Your task to perform on an android device: change the clock display to show seconds Image 0: 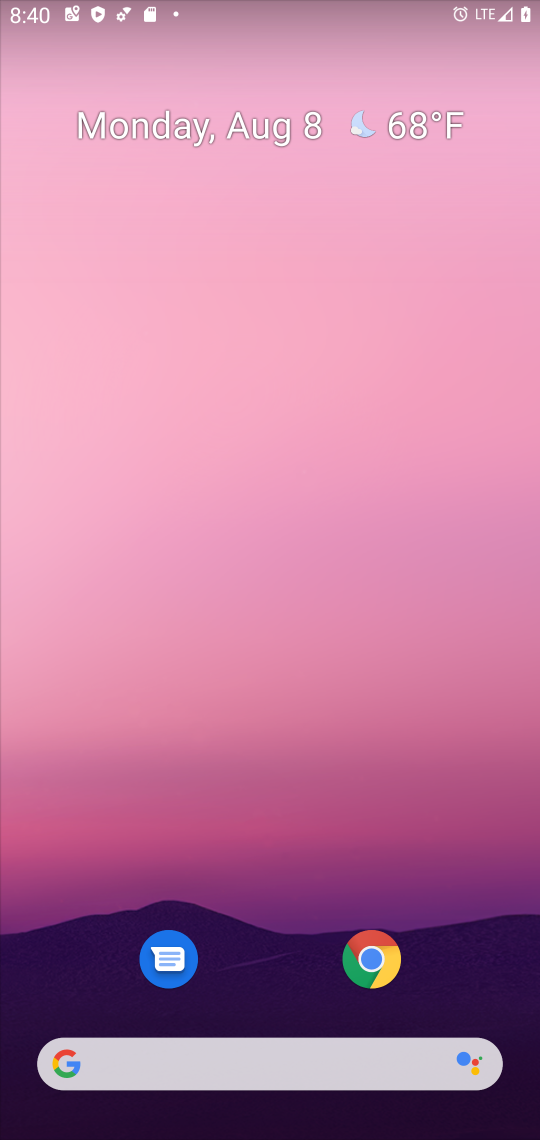
Step 0: drag from (516, 948) to (238, 96)
Your task to perform on an android device: change the clock display to show seconds Image 1: 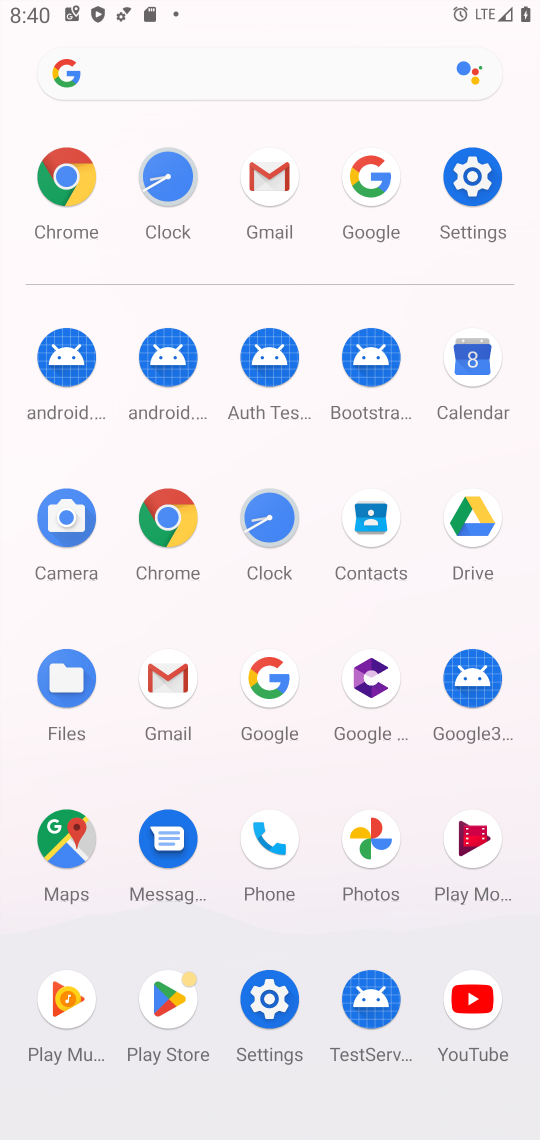
Step 1: click (274, 523)
Your task to perform on an android device: change the clock display to show seconds Image 2: 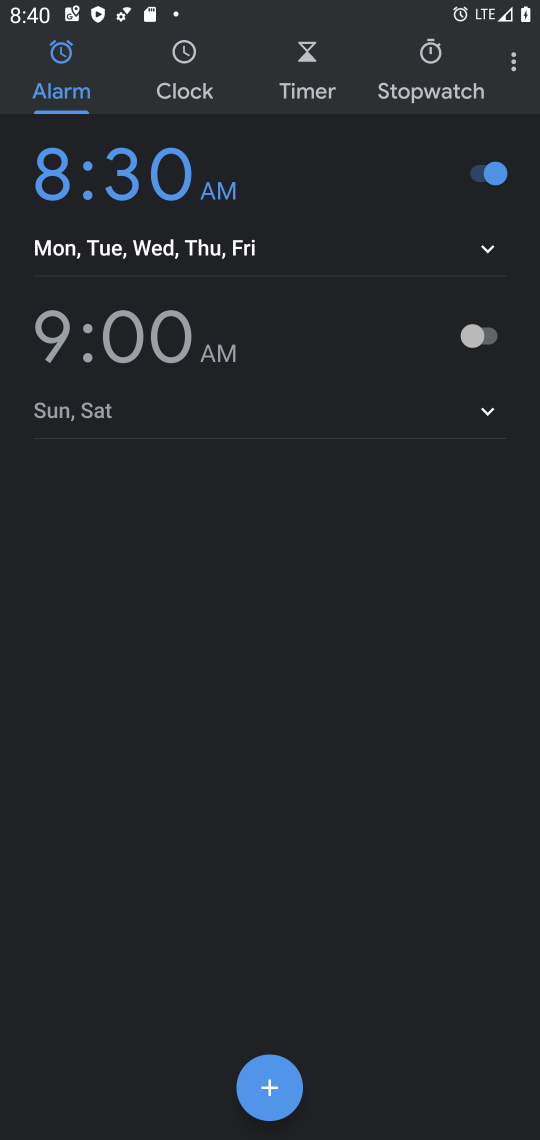
Step 2: click (513, 62)
Your task to perform on an android device: change the clock display to show seconds Image 3: 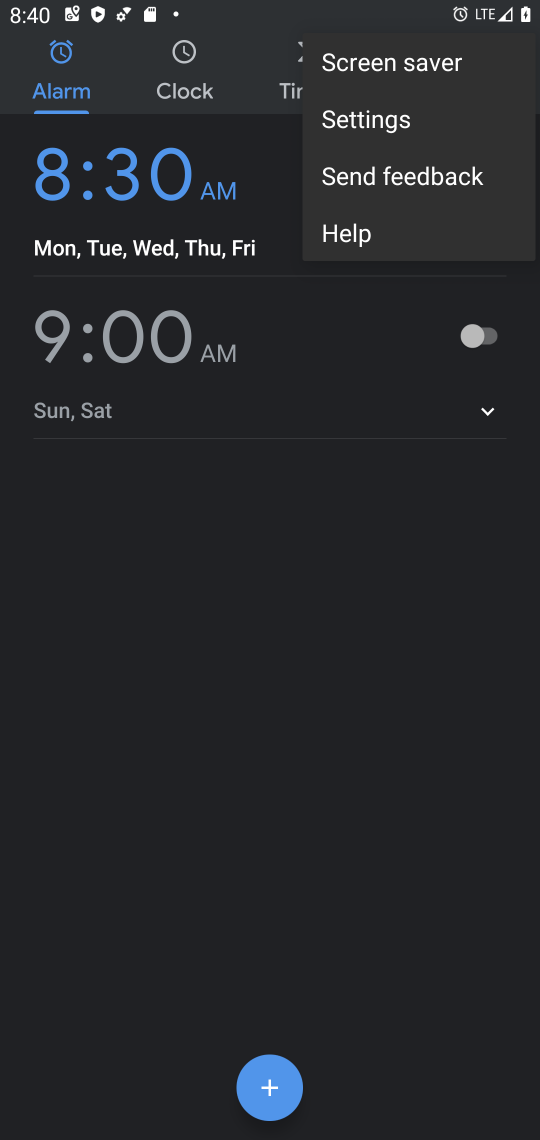
Step 3: click (393, 118)
Your task to perform on an android device: change the clock display to show seconds Image 4: 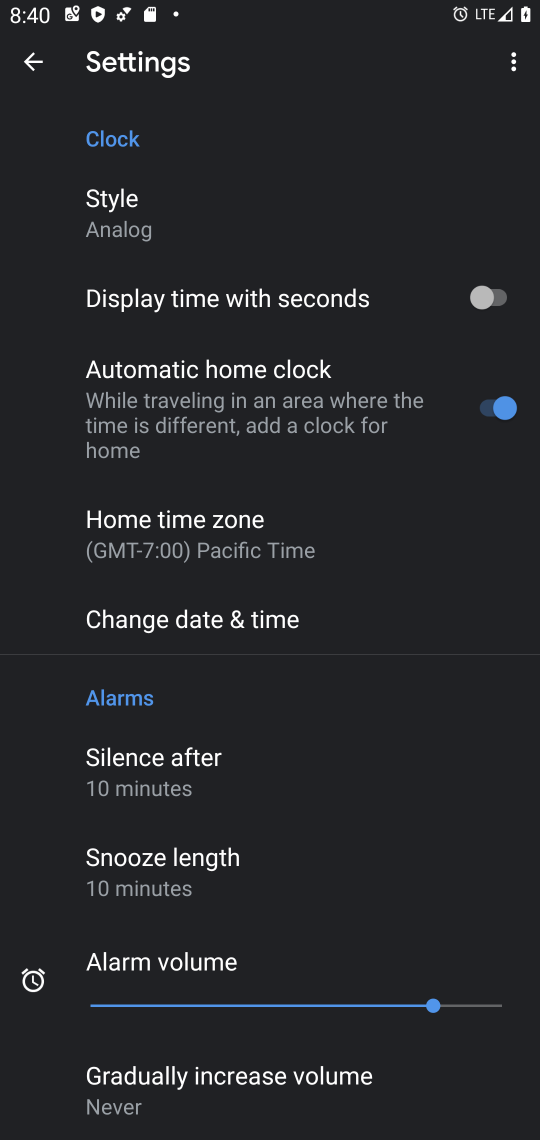
Step 4: click (479, 297)
Your task to perform on an android device: change the clock display to show seconds Image 5: 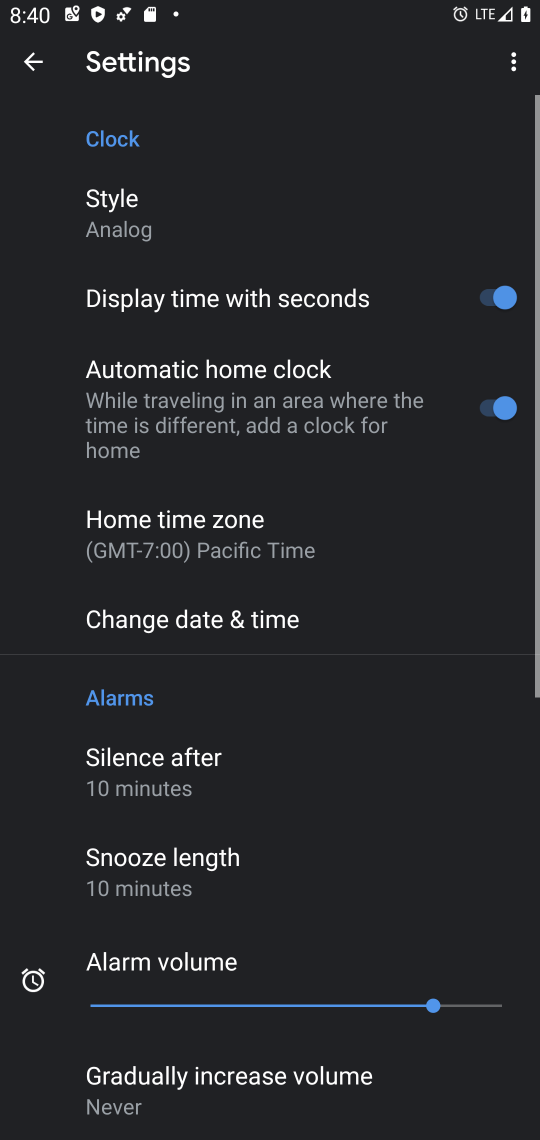
Step 5: task complete